Your task to perform on an android device: change notification settings in the gmail app Image 0: 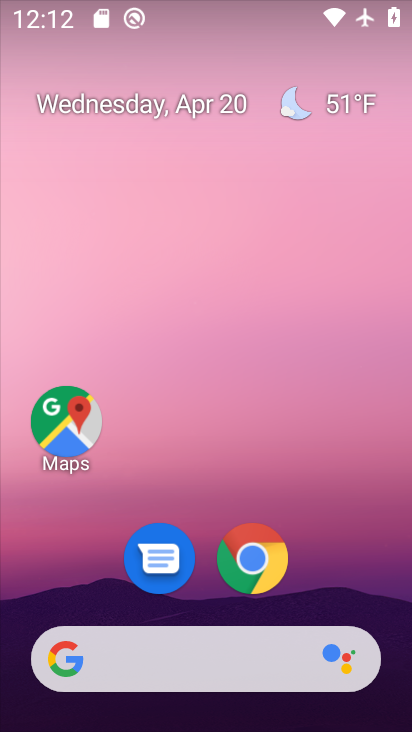
Step 0: drag from (367, 566) to (331, 92)
Your task to perform on an android device: change notification settings in the gmail app Image 1: 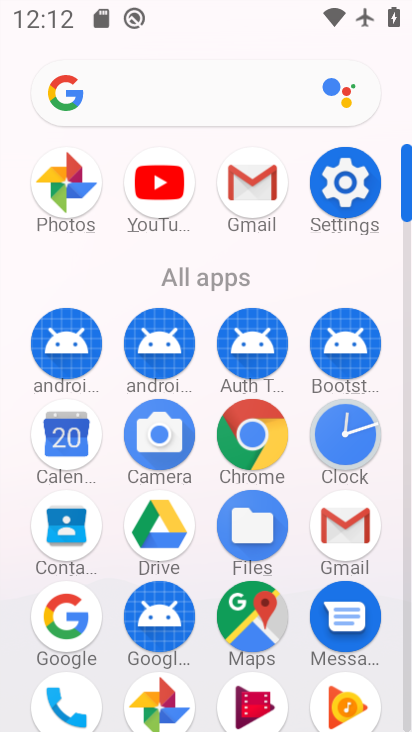
Step 1: click (407, 685)
Your task to perform on an android device: change notification settings in the gmail app Image 2: 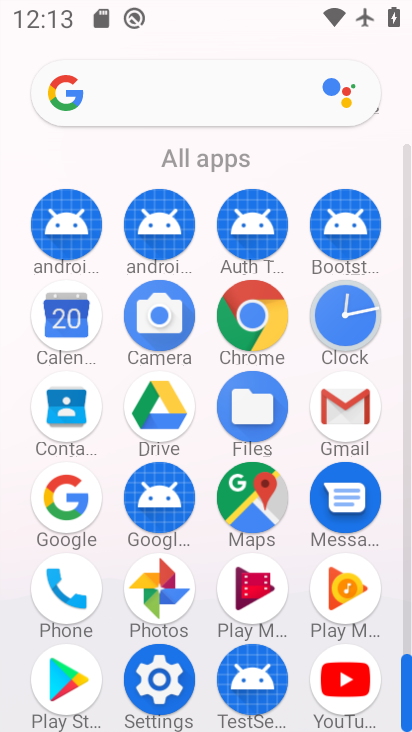
Step 2: click (343, 410)
Your task to perform on an android device: change notification settings in the gmail app Image 3: 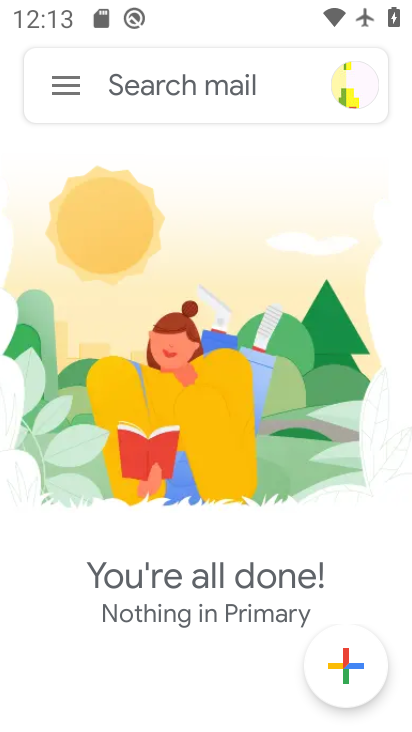
Step 3: click (64, 88)
Your task to perform on an android device: change notification settings in the gmail app Image 4: 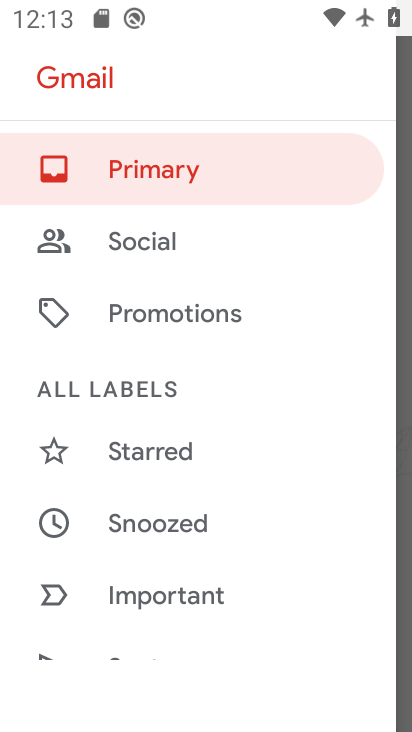
Step 4: drag from (225, 576) to (214, 353)
Your task to perform on an android device: change notification settings in the gmail app Image 5: 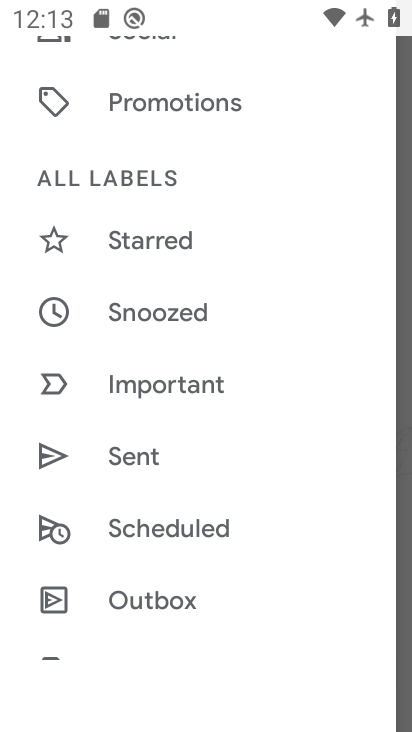
Step 5: drag from (199, 557) to (218, 332)
Your task to perform on an android device: change notification settings in the gmail app Image 6: 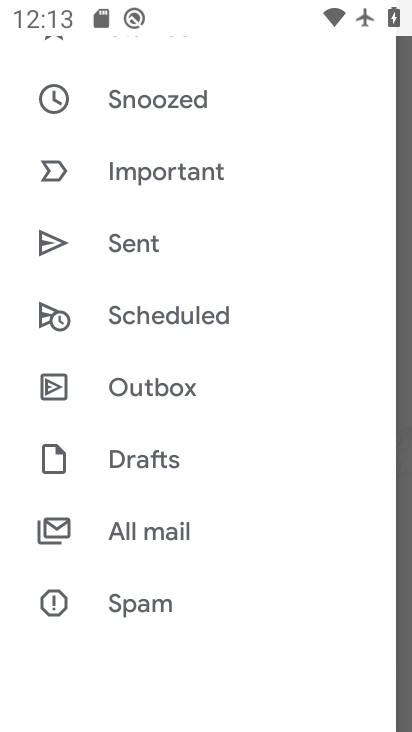
Step 6: drag from (229, 584) to (209, 304)
Your task to perform on an android device: change notification settings in the gmail app Image 7: 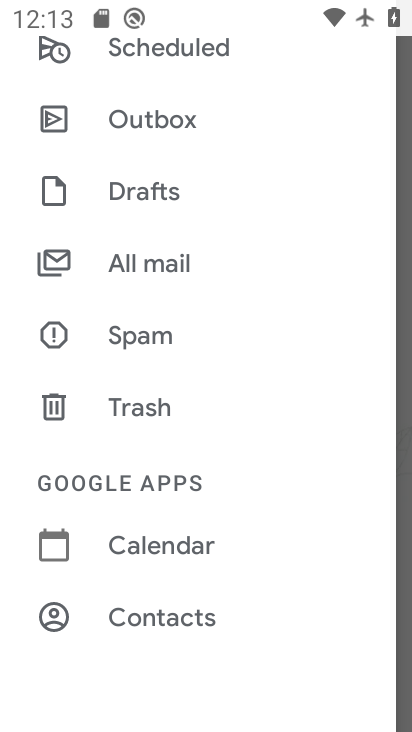
Step 7: drag from (219, 556) to (209, 259)
Your task to perform on an android device: change notification settings in the gmail app Image 8: 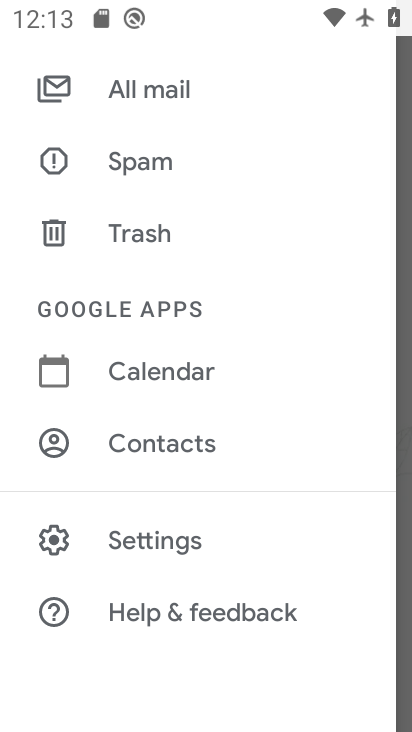
Step 8: click (150, 542)
Your task to perform on an android device: change notification settings in the gmail app Image 9: 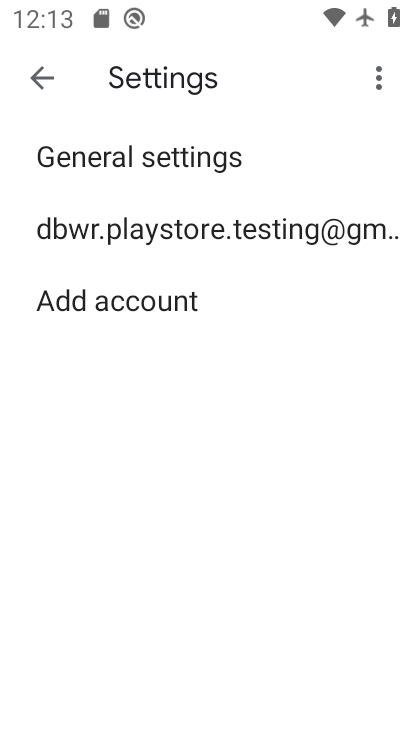
Step 9: click (157, 232)
Your task to perform on an android device: change notification settings in the gmail app Image 10: 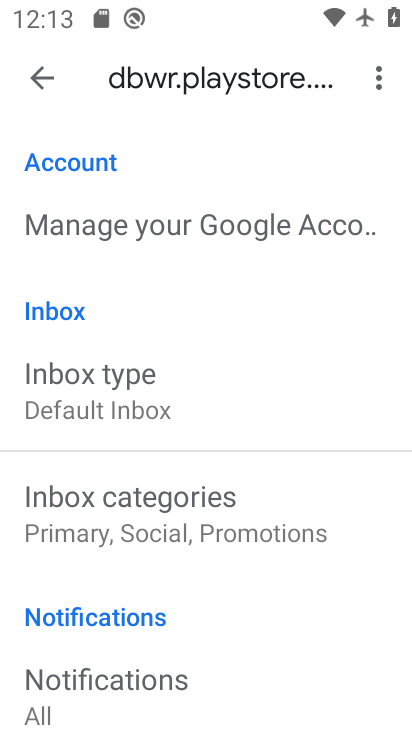
Step 10: drag from (311, 539) to (257, 273)
Your task to perform on an android device: change notification settings in the gmail app Image 11: 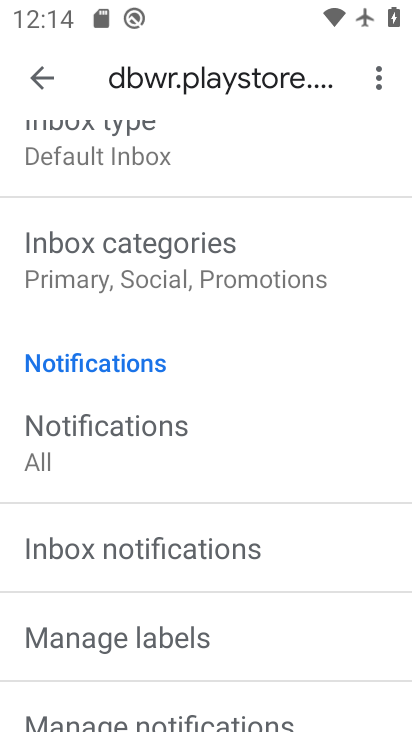
Step 11: drag from (318, 614) to (313, 318)
Your task to perform on an android device: change notification settings in the gmail app Image 12: 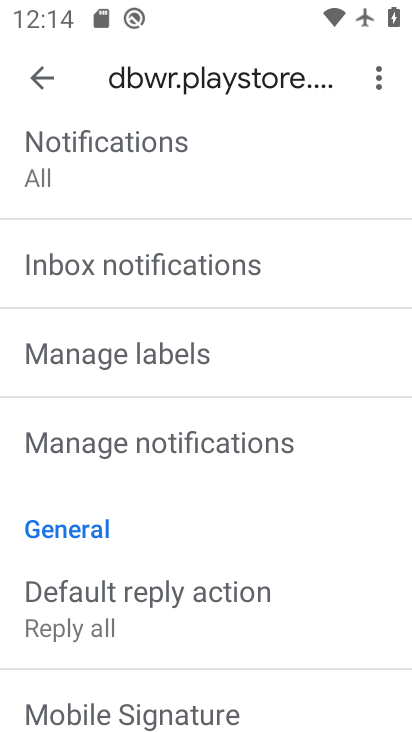
Step 12: click (75, 440)
Your task to perform on an android device: change notification settings in the gmail app Image 13: 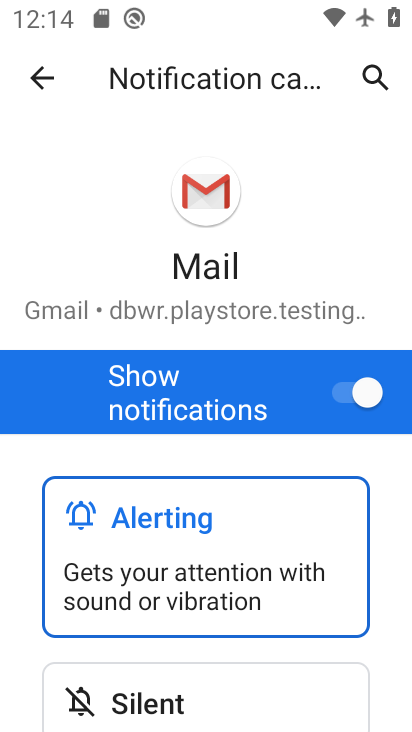
Step 13: click (333, 392)
Your task to perform on an android device: change notification settings in the gmail app Image 14: 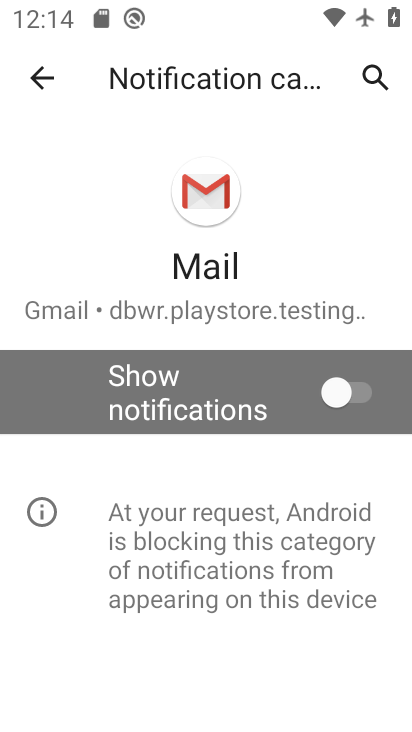
Step 14: task complete